Your task to perform on an android device: read, delete, or share a saved page in the chrome app Image 0: 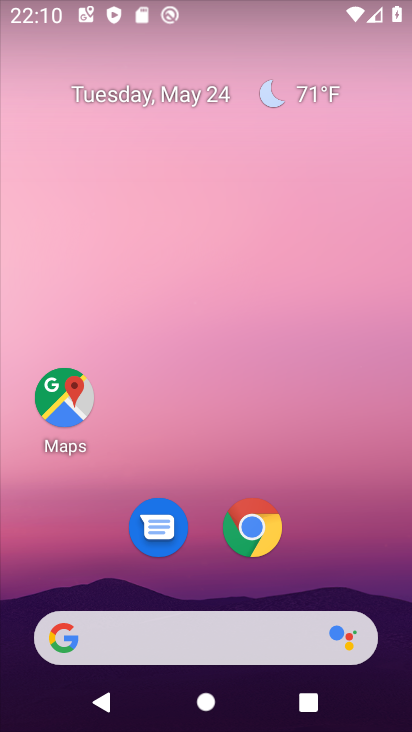
Step 0: click (251, 516)
Your task to perform on an android device: read, delete, or share a saved page in the chrome app Image 1: 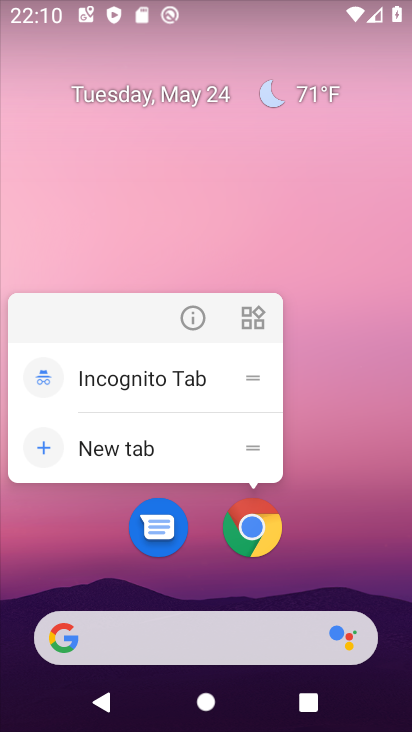
Step 1: click (240, 513)
Your task to perform on an android device: read, delete, or share a saved page in the chrome app Image 2: 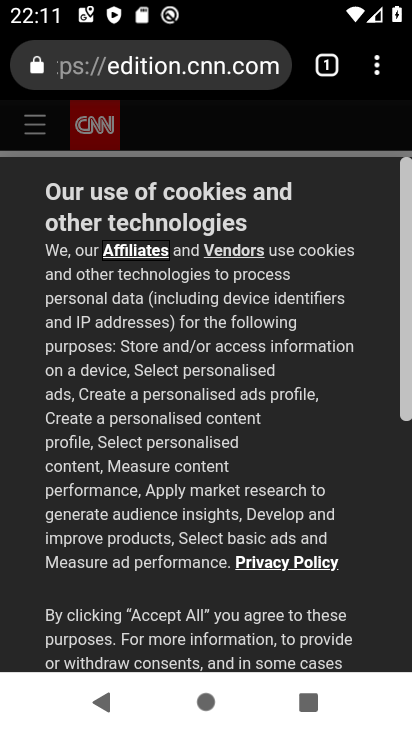
Step 2: click (380, 63)
Your task to perform on an android device: read, delete, or share a saved page in the chrome app Image 3: 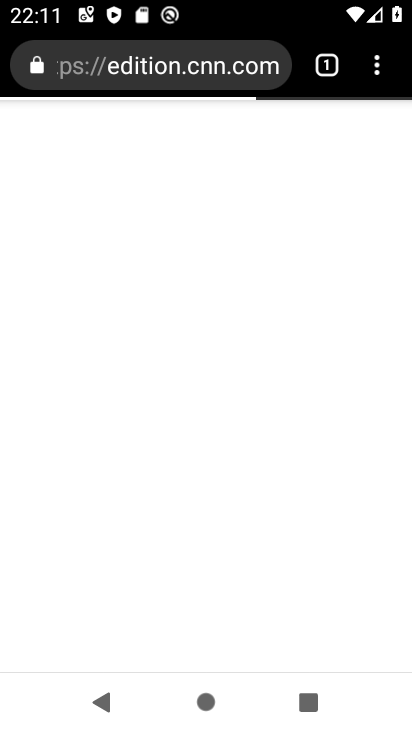
Step 3: click (381, 63)
Your task to perform on an android device: read, delete, or share a saved page in the chrome app Image 4: 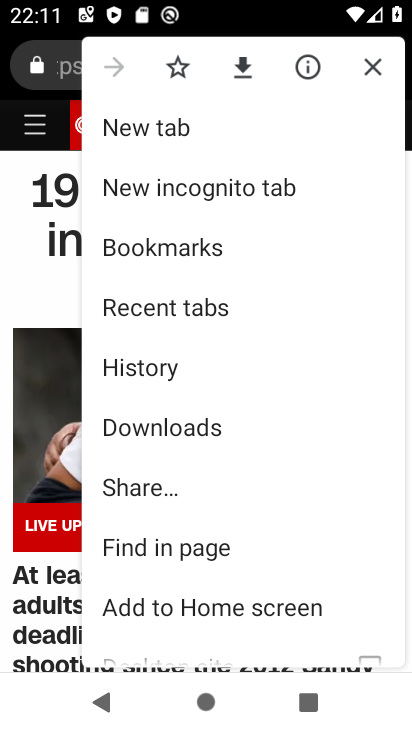
Step 4: click (142, 457)
Your task to perform on an android device: read, delete, or share a saved page in the chrome app Image 5: 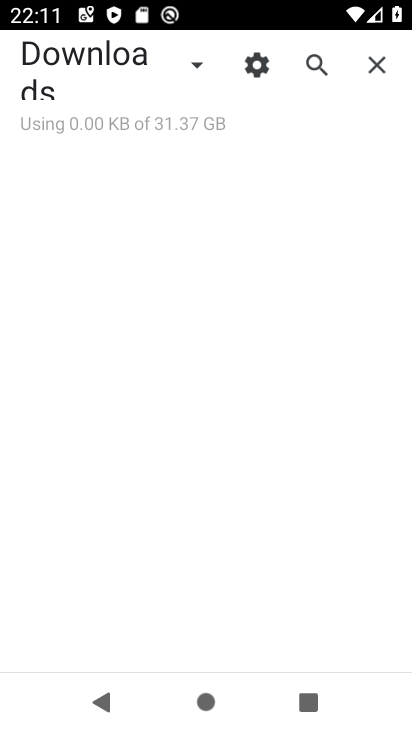
Step 5: click (104, 62)
Your task to perform on an android device: read, delete, or share a saved page in the chrome app Image 6: 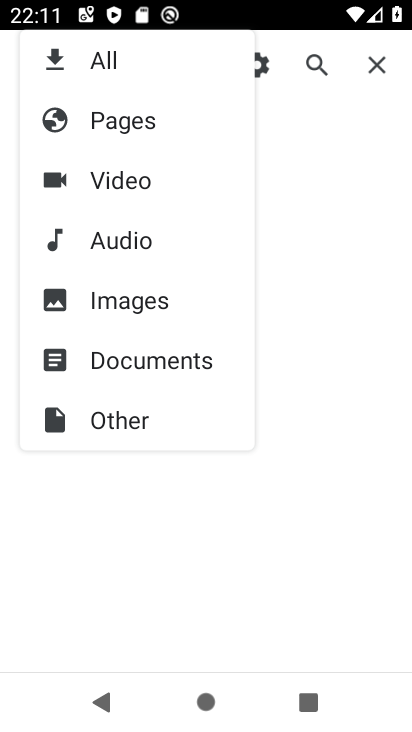
Step 6: click (128, 132)
Your task to perform on an android device: read, delete, or share a saved page in the chrome app Image 7: 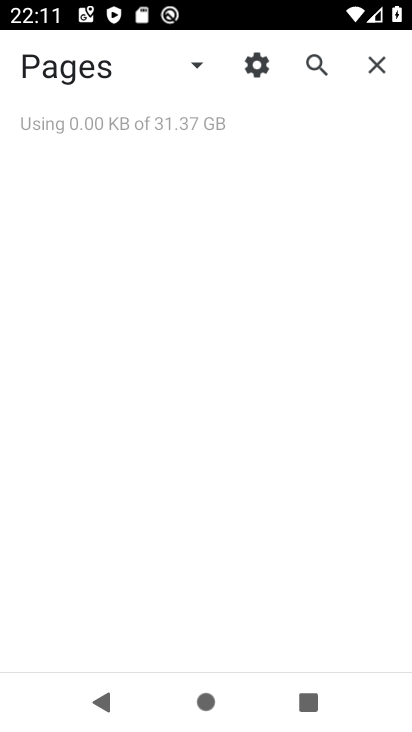
Step 7: task complete